Your task to perform on an android device: set default search engine in the chrome app Image 0: 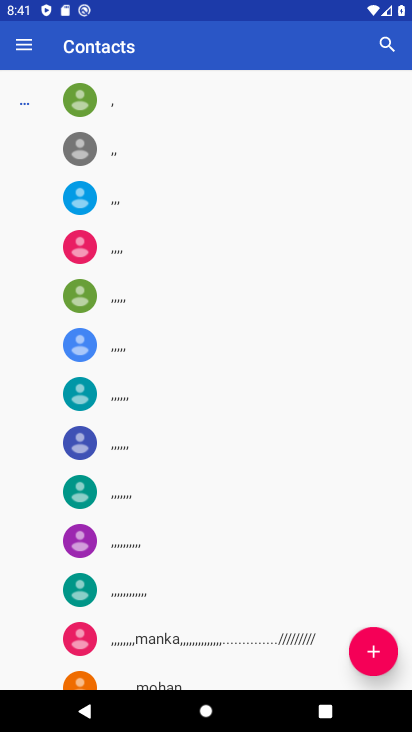
Step 0: press home button
Your task to perform on an android device: set default search engine in the chrome app Image 1: 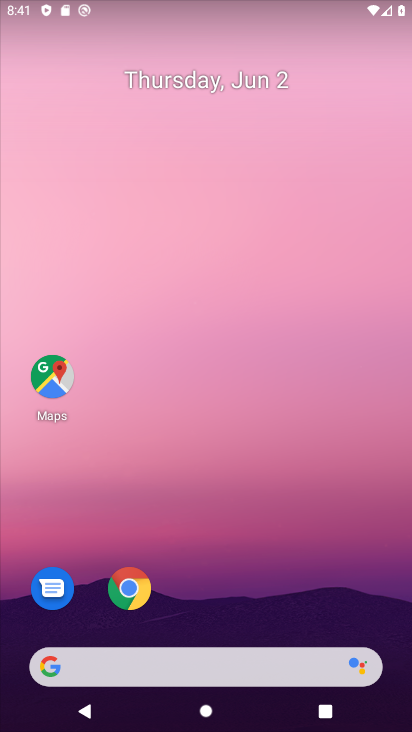
Step 1: click (151, 593)
Your task to perform on an android device: set default search engine in the chrome app Image 2: 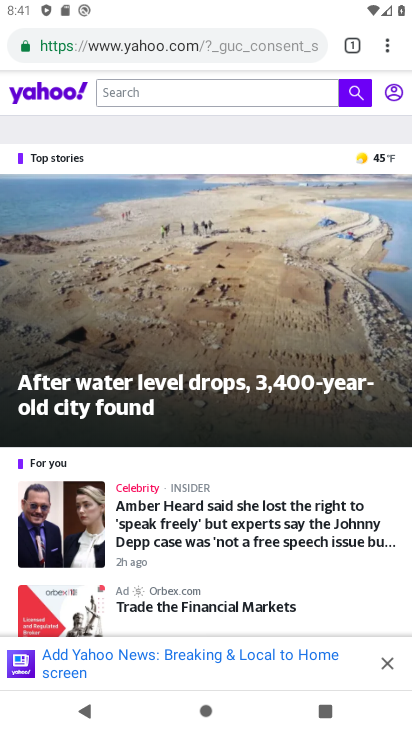
Step 2: click (381, 38)
Your task to perform on an android device: set default search engine in the chrome app Image 3: 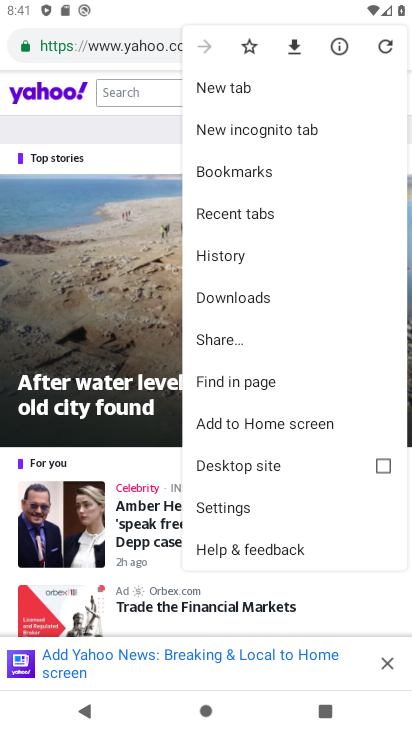
Step 3: drag from (325, 541) to (318, 383)
Your task to perform on an android device: set default search engine in the chrome app Image 4: 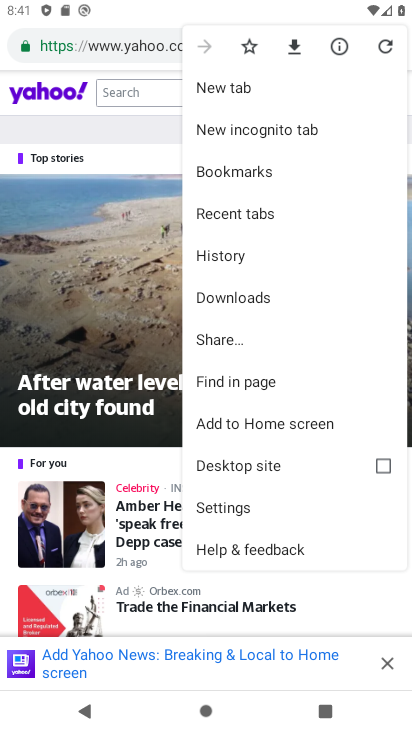
Step 4: click (288, 504)
Your task to perform on an android device: set default search engine in the chrome app Image 5: 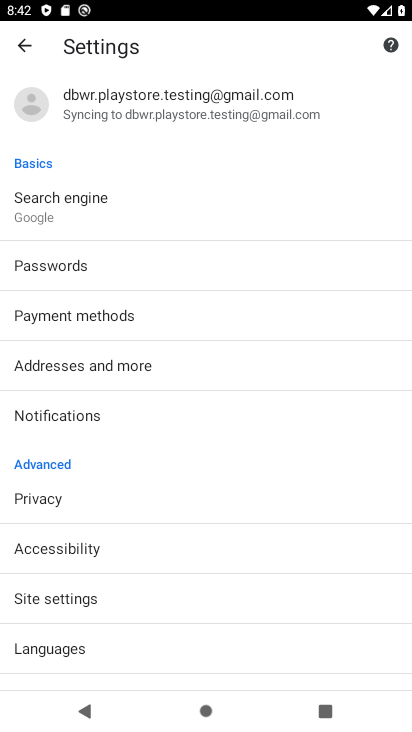
Step 5: click (230, 196)
Your task to perform on an android device: set default search engine in the chrome app Image 6: 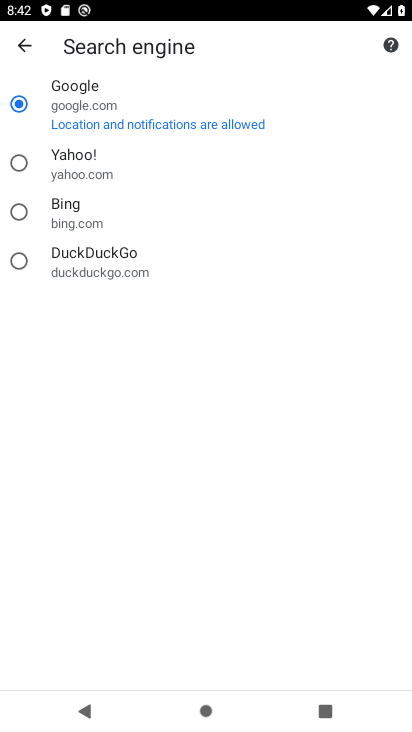
Step 6: click (70, 215)
Your task to perform on an android device: set default search engine in the chrome app Image 7: 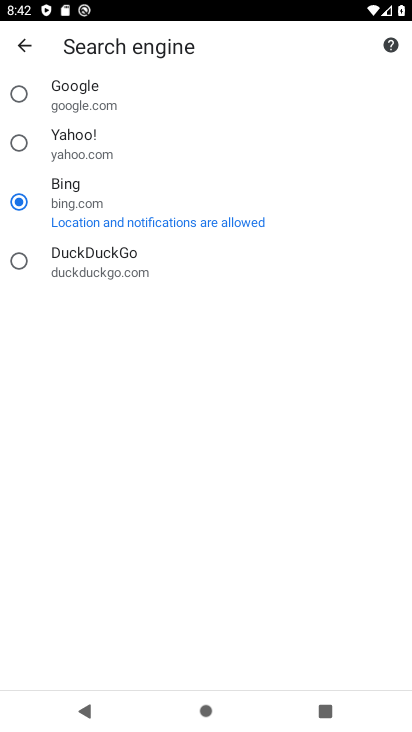
Step 7: task complete